Your task to perform on an android device: turn off sleep mode Image 0: 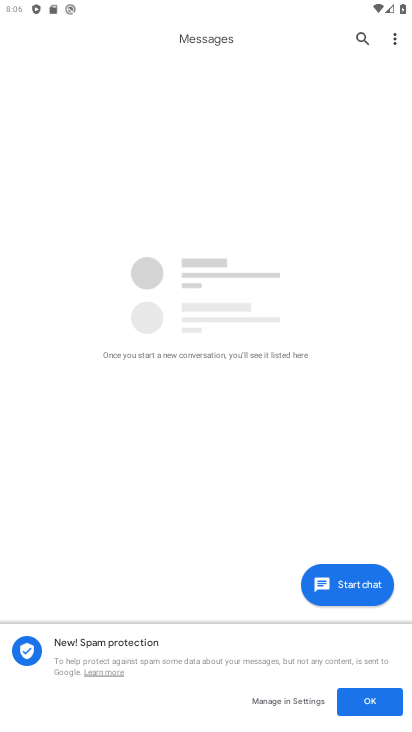
Step 0: press home button
Your task to perform on an android device: turn off sleep mode Image 1: 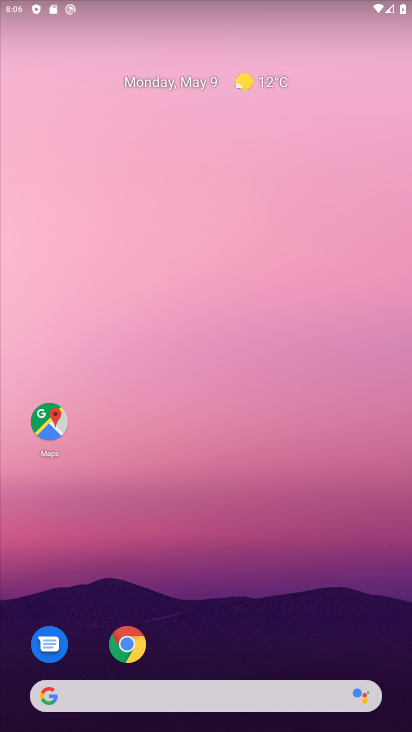
Step 1: click (136, 664)
Your task to perform on an android device: turn off sleep mode Image 2: 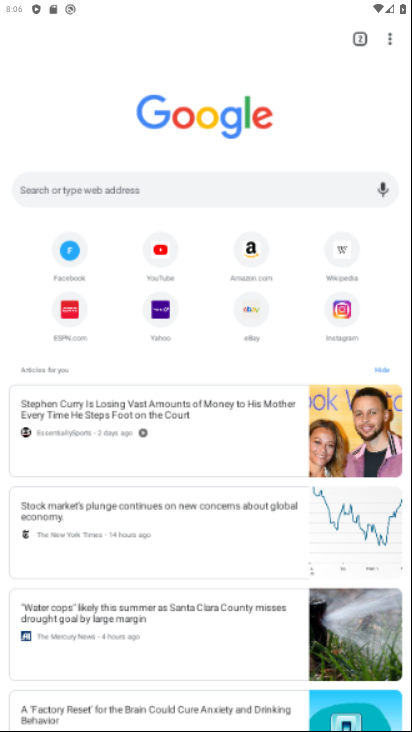
Step 2: click (128, 656)
Your task to perform on an android device: turn off sleep mode Image 3: 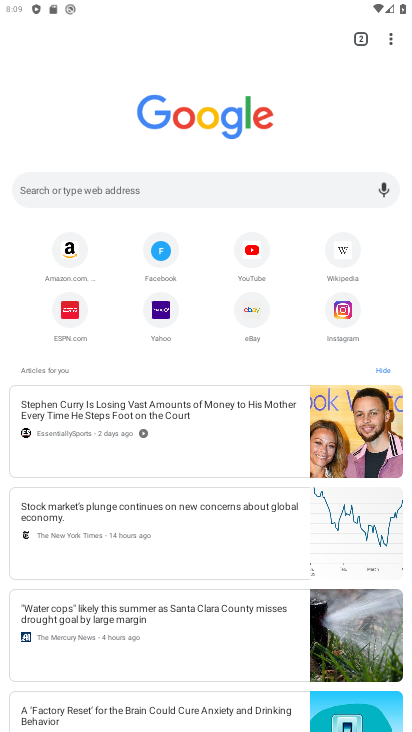
Step 3: task complete